Your task to perform on an android device: move an email to a new category in the gmail app Image 0: 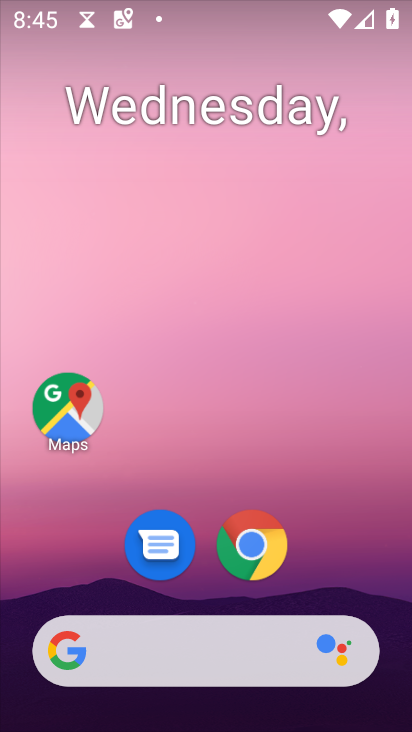
Step 0: press home button
Your task to perform on an android device: move an email to a new category in the gmail app Image 1: 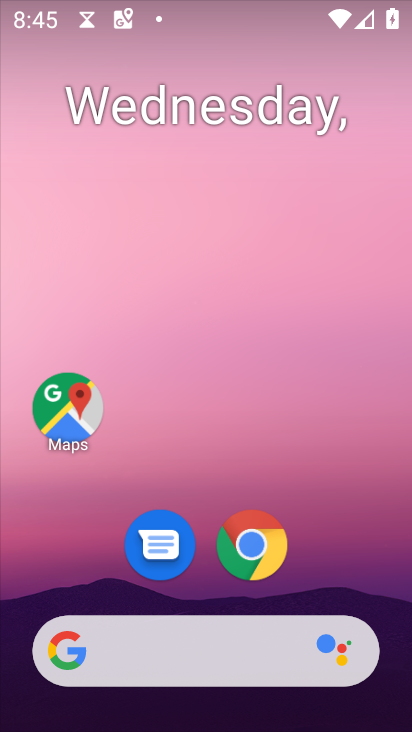
Step 1: drag from (143, 644) to (292, 206)
Your task to perform on an android device: move an email to a new category in the gmail app Image 2: 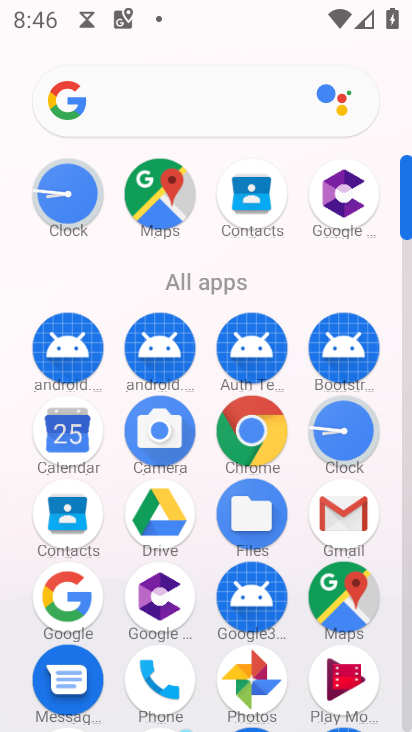
Step 2: click (339, 517)
Your task to perform on an android device: move an email to a new category in the gmail app Image 3: 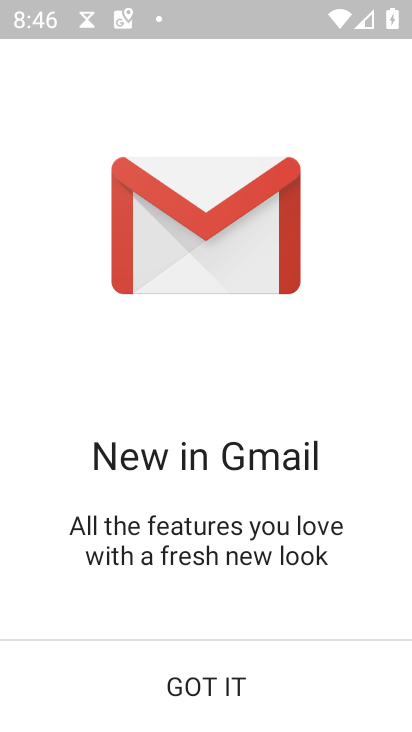
Step 3: click (216, 673)
Your task to perform on an android device: move an email to a new category in the gmail app Image 4: 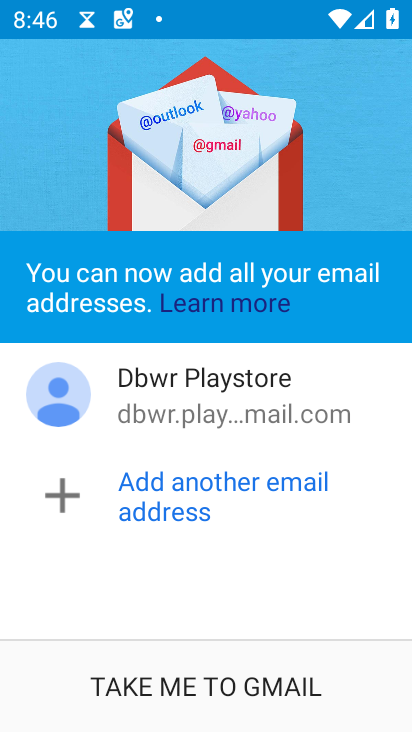
Step 4: click (213, 688)
Your task to perform on an android device: move an email to a new category in the gmail app Image 5: 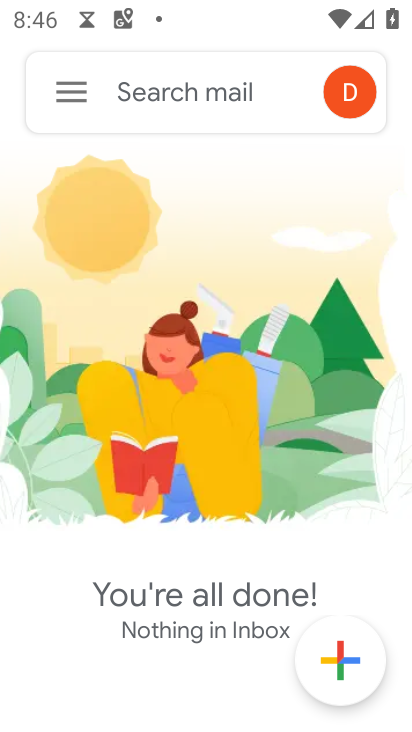
Step 5: task complete